Your task to perform on an android device: see creations saved in the google photos Image 0: 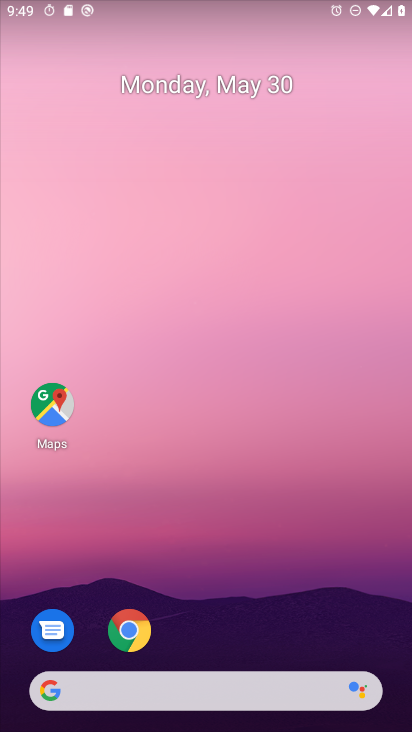
Step 0: drag from (328, 629) to (246, 1)
Your task to perform on an android device: see creations saved in the google photos Image 1: 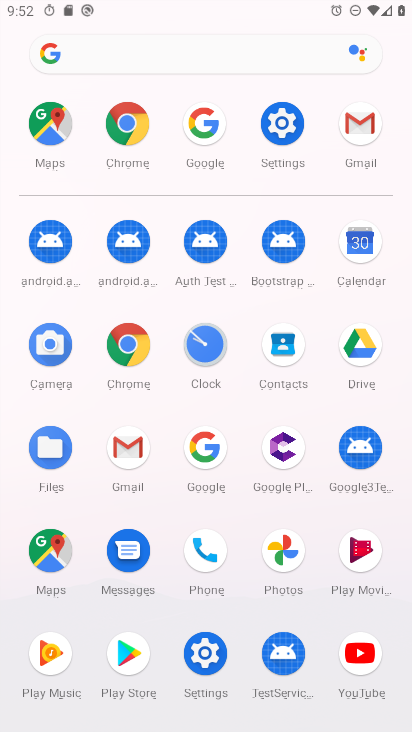
Step 1: click (270, 543)
Your task to perform on an android device: see creations saved in the google photos Image 2: 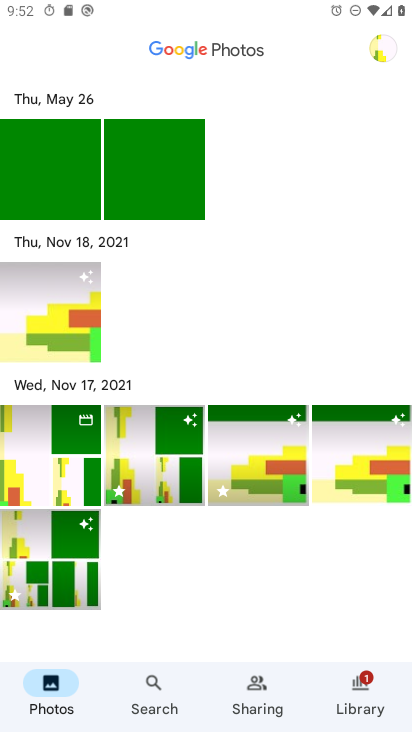
Step 2: click (145, 687)
Your task to perform on an android device: see creations saved in the google photos Image 3: 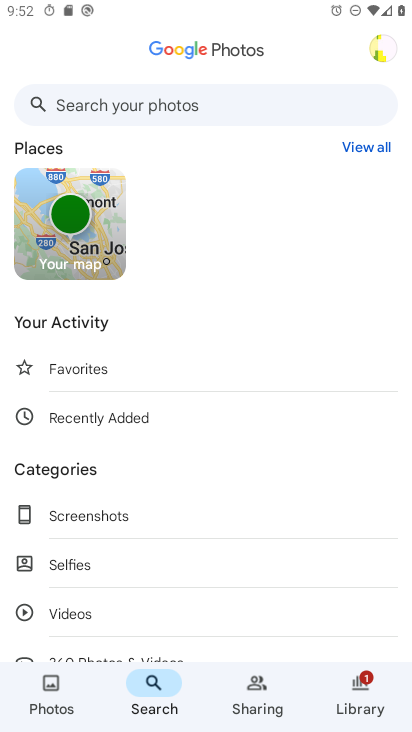
Step 3: drag from (149, 587) to (194, 215)
Your task to perform on an android device: see creations saved in the google photos Image 4: 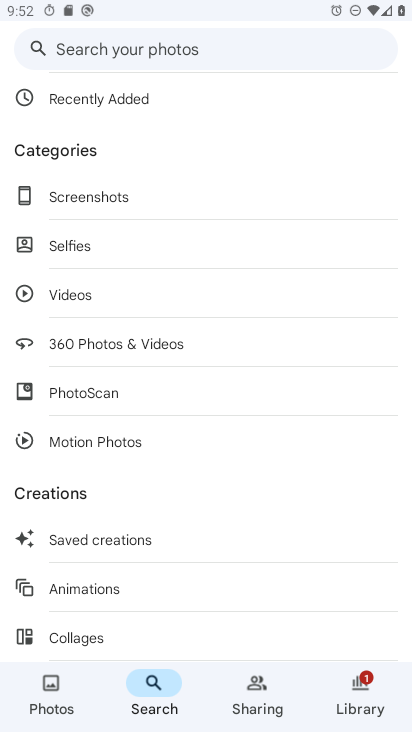
Step 4: click (136, 542)
Your task to perform on an android device: see creations saved in the google photos Image 5: 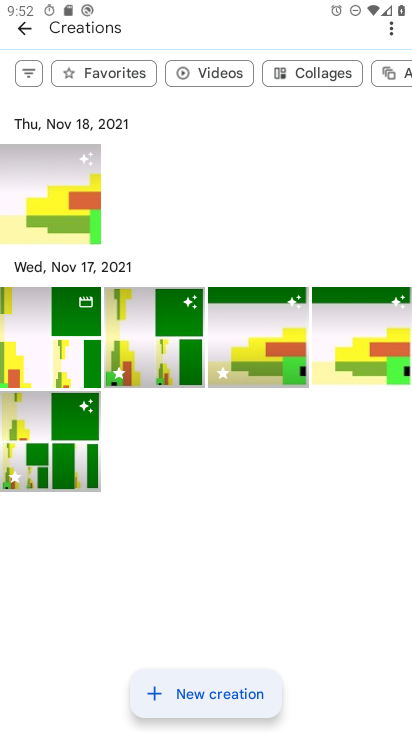
Step 5: task complete